Your task to perform on an android device: Open notification settings Image 0: 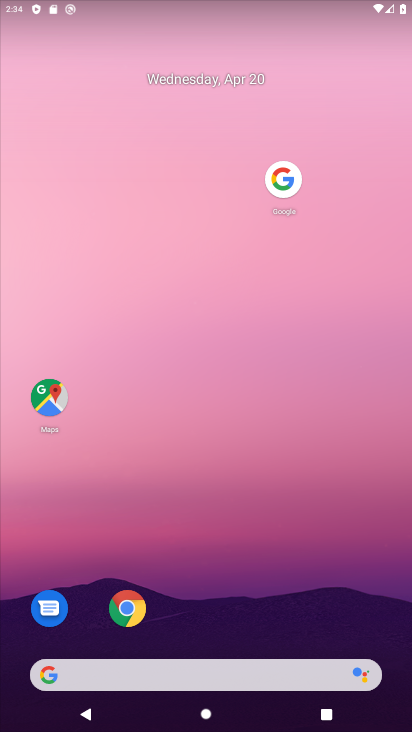
Step 0: drag from (269, 587) to (317, 133)
Your task to perform on an android device: Open notification settings Image 1: 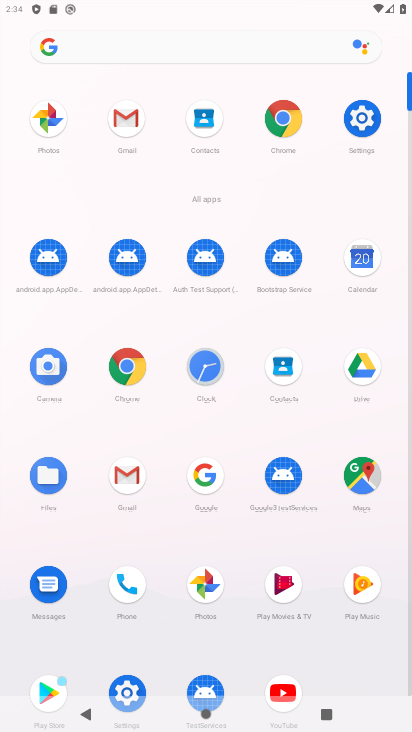
Step 1: click (357, 118)
Your task to perform on an android device: Open notification settings Image 2: 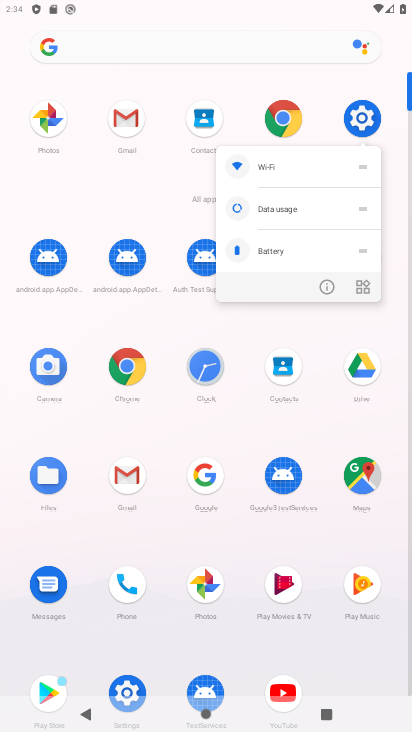
Step 2: click (358, 118)
Your task to perform on an android device: Open notification settings Image 3: 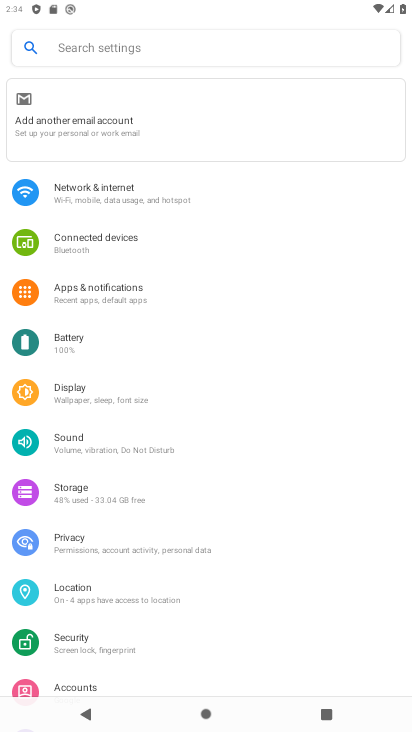
Step 3: click (91, 295)
Your task to perform on an android device: Open notification settings Image 4: 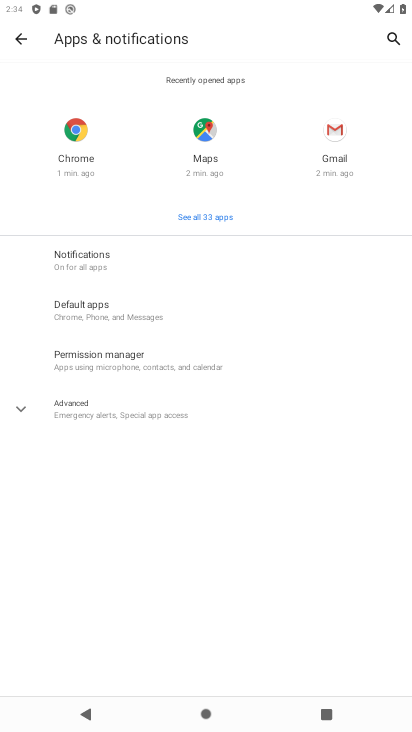
Step 4: click (95, 255)
Your task to perform on an android device: Open notification settings Image 5: 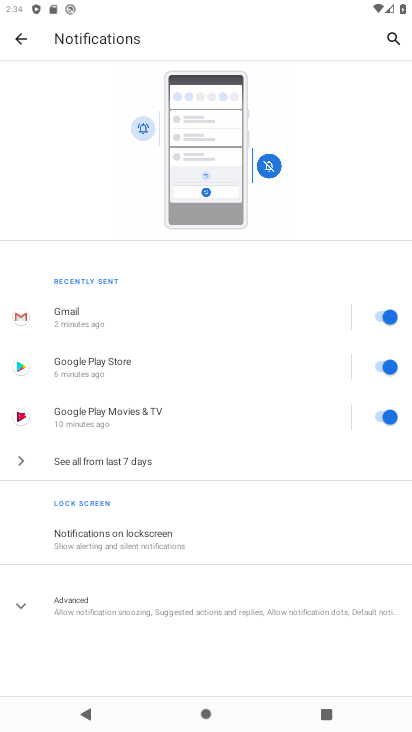
Step 5: task complete